Your task to perform on an android device: open wifi settings Image 0: 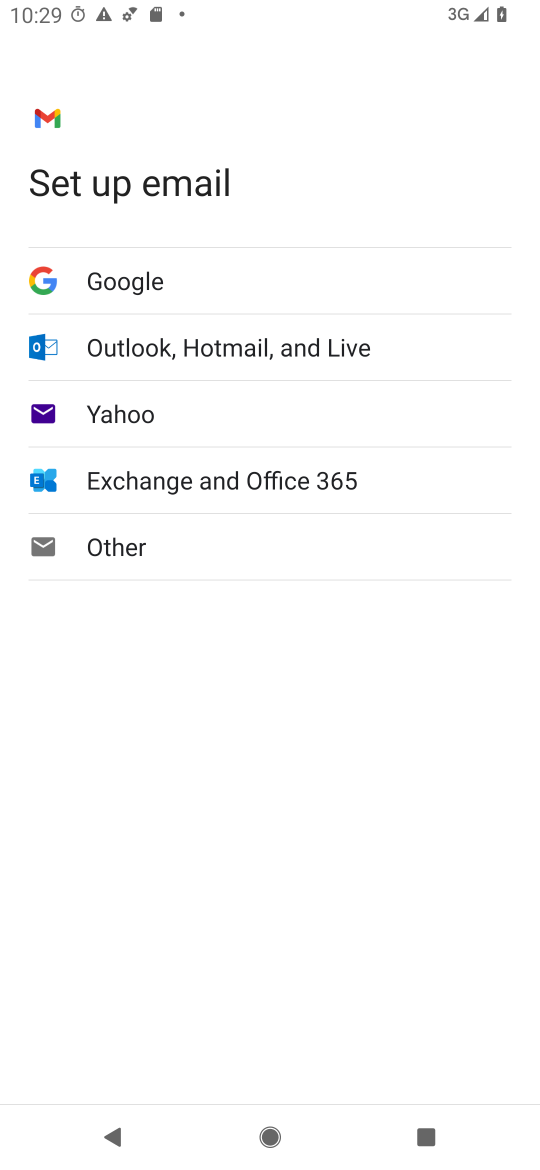
Step 0: press home button
Your task to perform on an android device: open wifi settings Image 1: 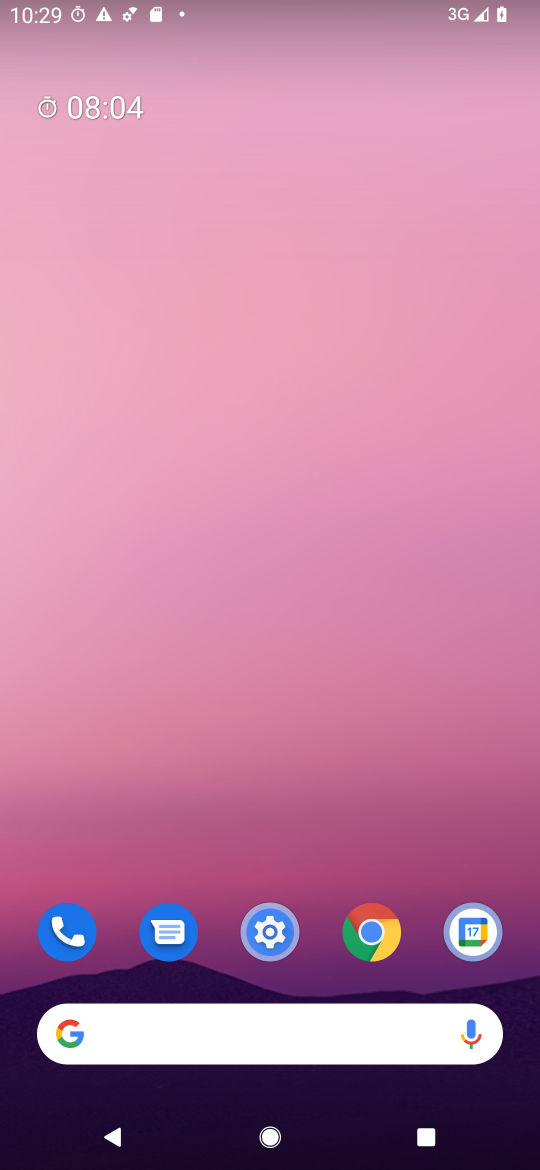
Step 1: click (265, 947)
Your task to perform on an android device: open wifi settings Image 2: 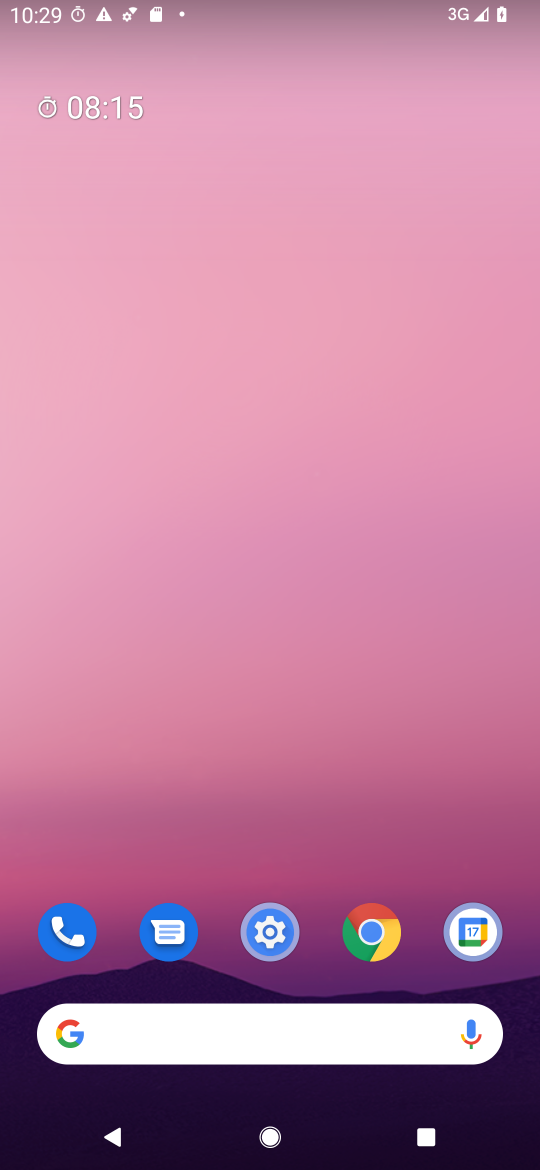
Step 2: click (241, 947)
Your task to perform on an android device: open wifi settings Image 3: 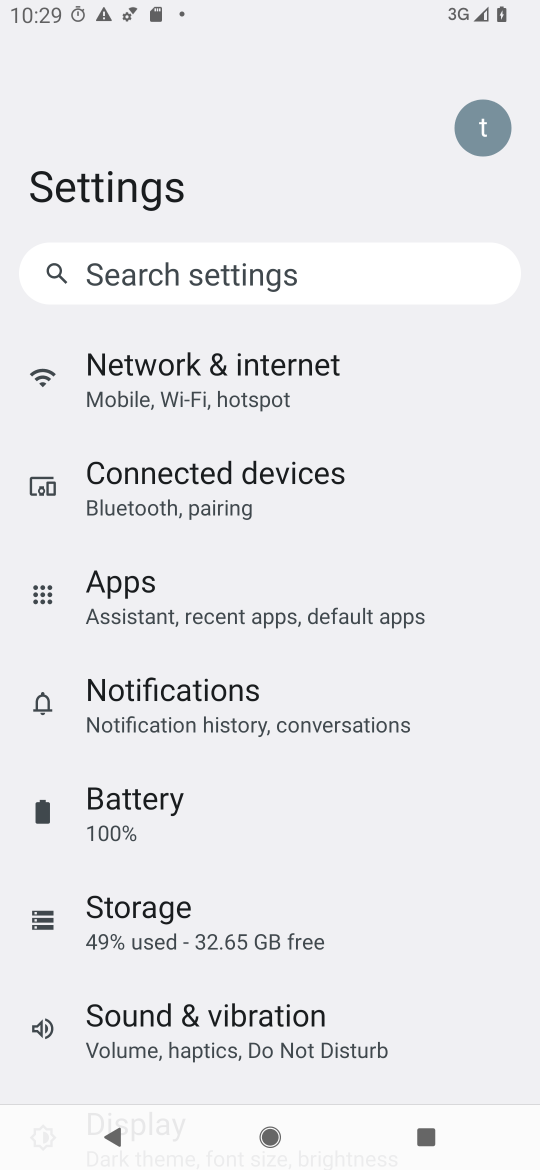
Step 3: click (222, 378)
Your task to perform on an android device: open wifi settings Image 4: 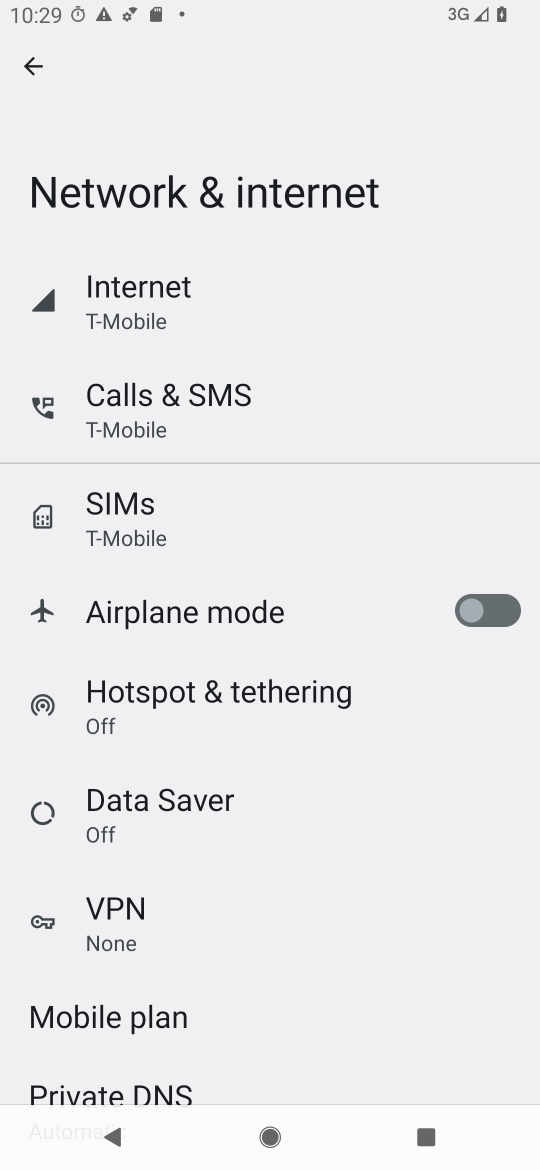
Step 4: click (230, 319)
Your task to perform on an android device: open wifi settings Image 5: 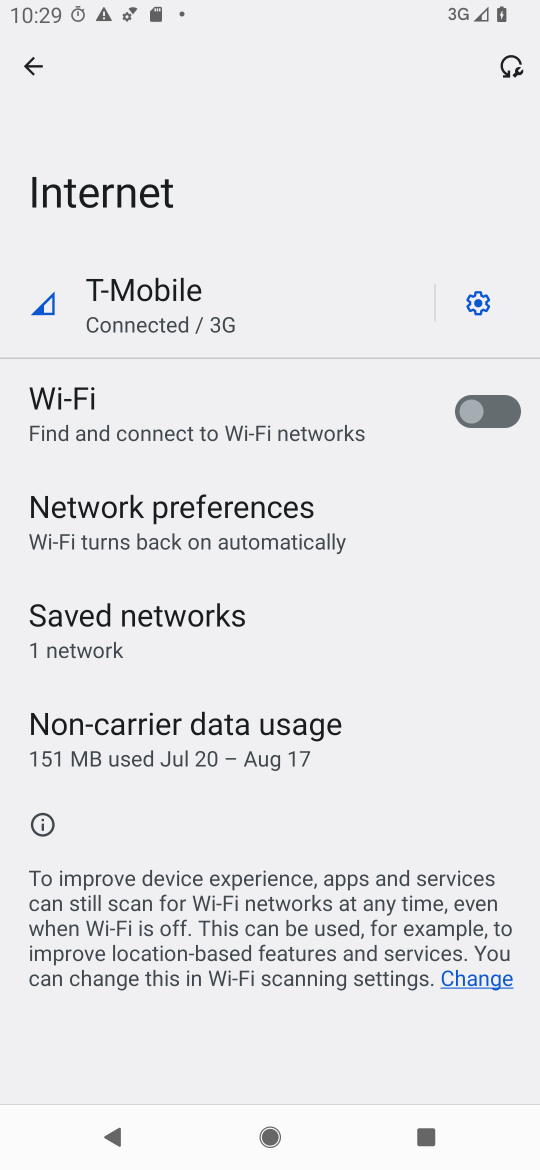
Step 5: click (55, 412)
Your task to perform on an android device: open wifi settings Image 6: 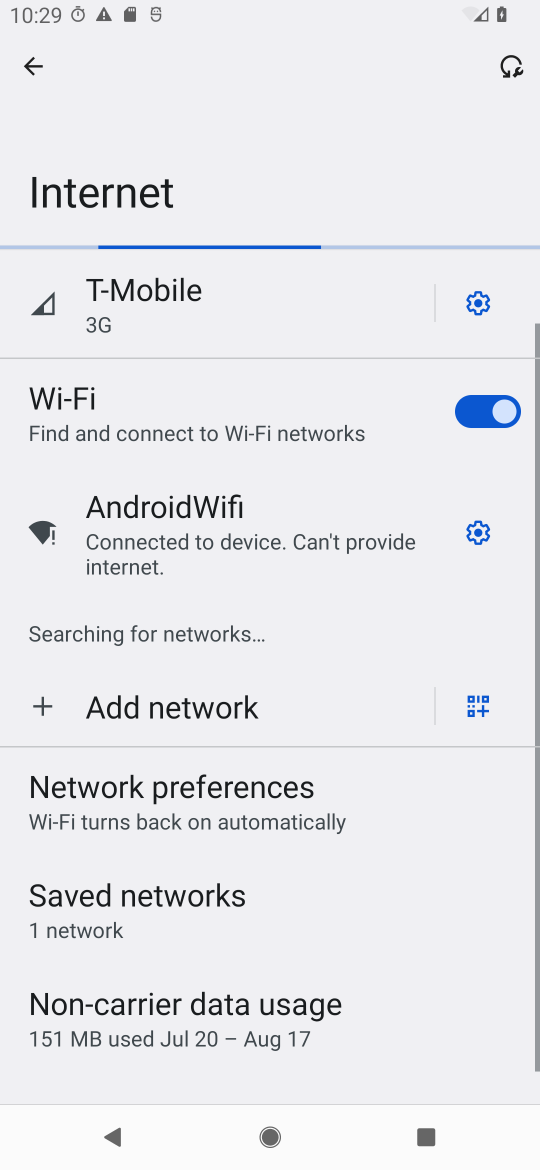
Step 6: click (443, 408)
Your task to perform on an android device: open wifi settings Image 7: 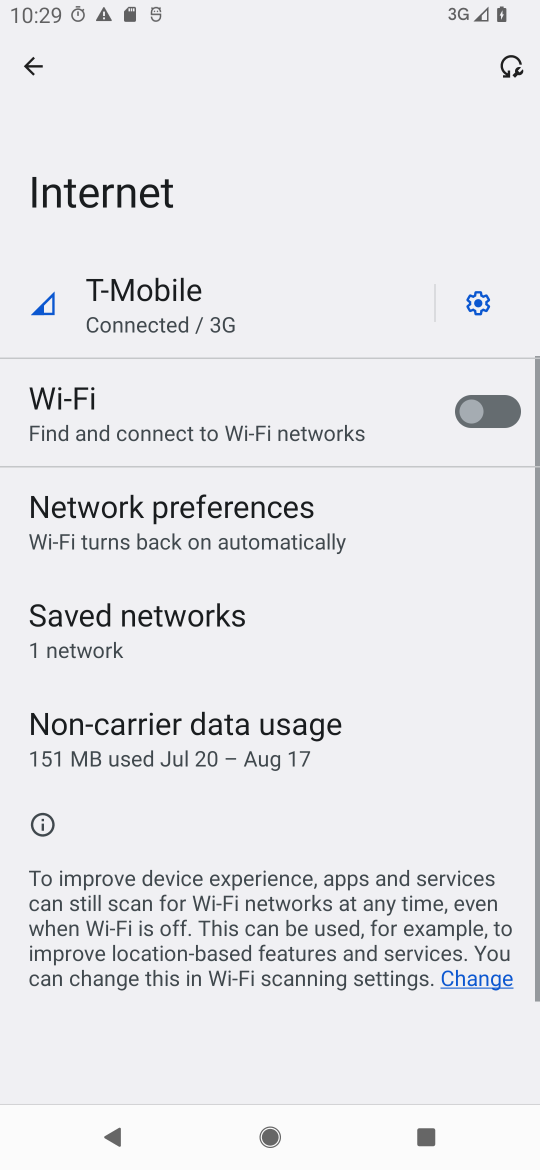
Step 7: task complete